Your task to perform on an android device: turn pop-ups off in chrome Image 0: 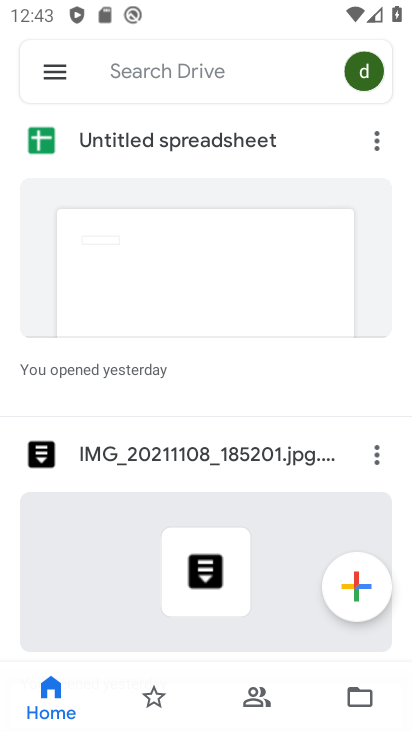
Step 0: press home button
Your task to perform on an android device: turn pop-ups off in chrome Image 1: 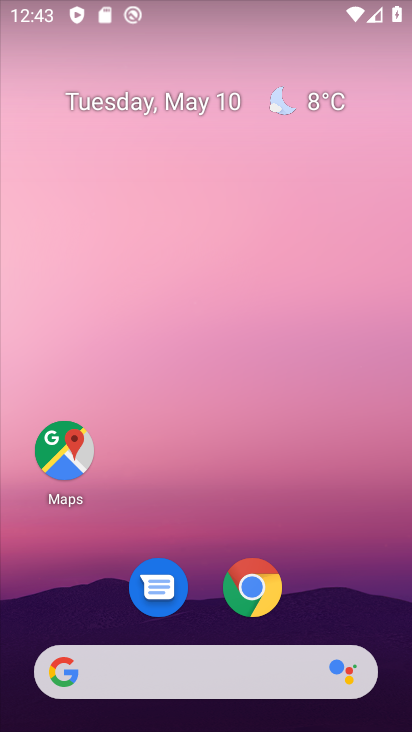
Step 1: click (255, 573)
Your task to perform on an android device: turn pop-ups off in chrome Image 2: 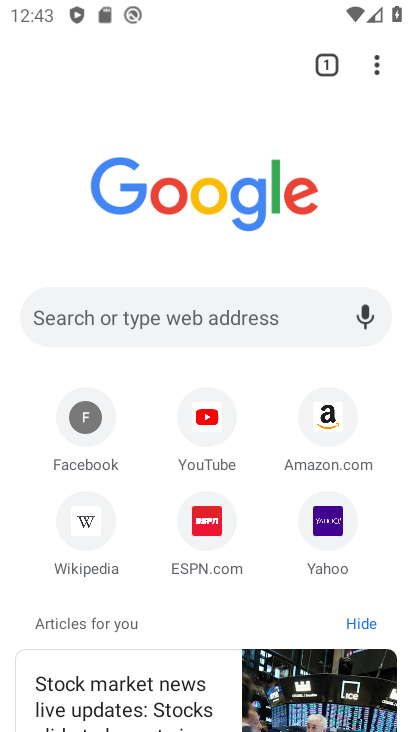
Step 2: click (385, 66)
Your task to perform on an android device: turn pop-ups off in chrome Image 3: 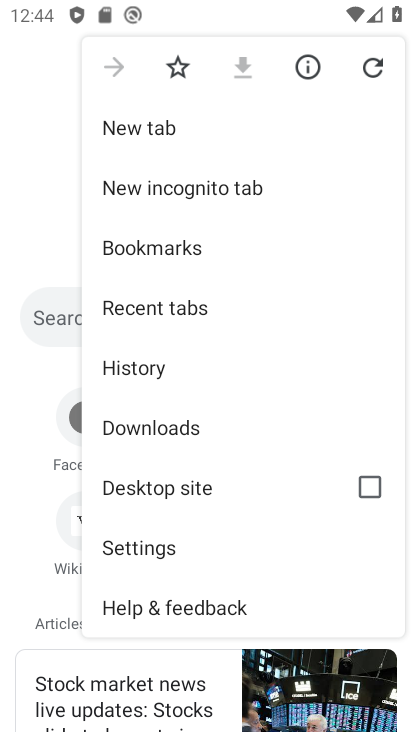
Step 3: click (155, 537)
Your task to perform on an android device: turn pop-ups off in chrome Image 4: 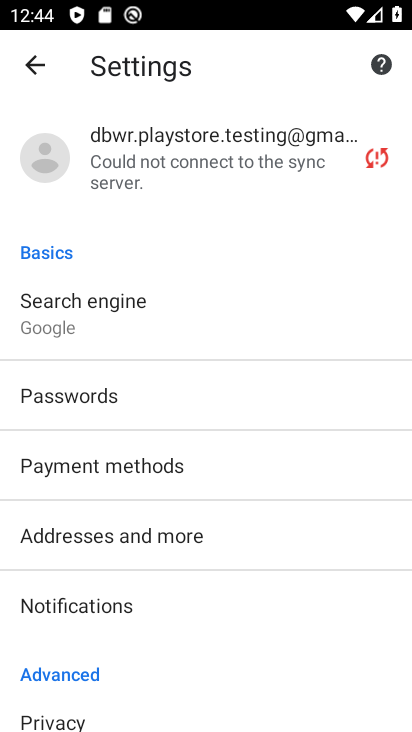
Step 4: click (41, 68)
Your task to perform on an android device: turn pop-ups off in chrome Image 5: 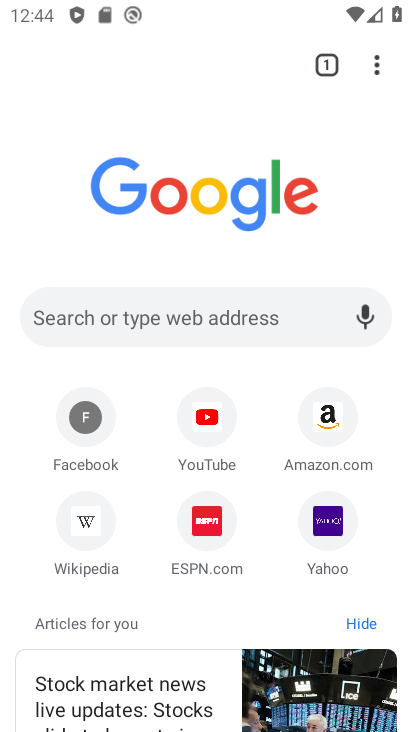
Step 5: click (376, 70)
Your task to perform on an android device: turn pop-ups off in chrome Image 6: 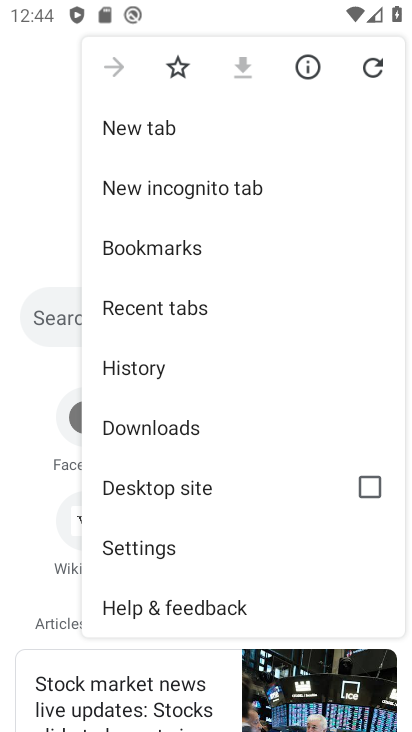
Step 6: click (170, 545)
Your task to perform on an android device: turn pop-ups off in chrome Image 7: 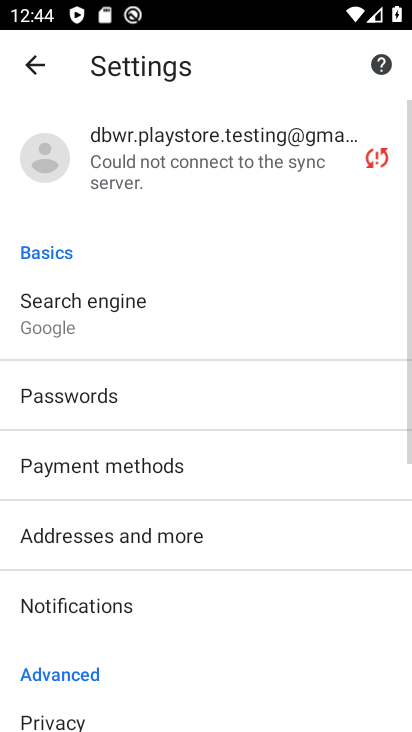
Step 7: drag from (211, 586) to (172, 275)
Your task to perform on an android device: turn pop-ups off in chrome Image 8: 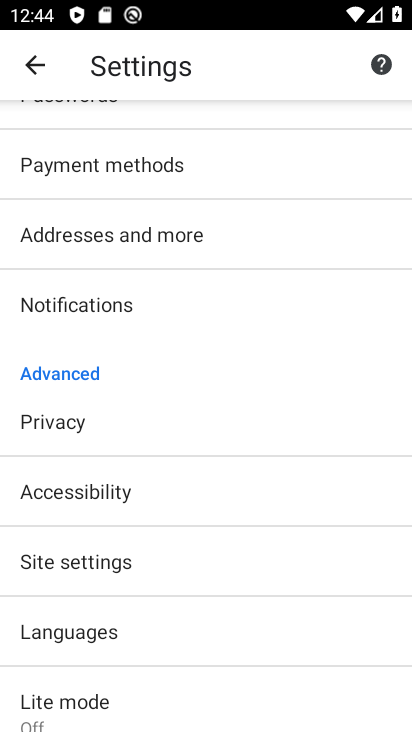
Step 8: click (145, 556)
Your task to perform on an android device: turn pop-ups off in chrome Image 9: 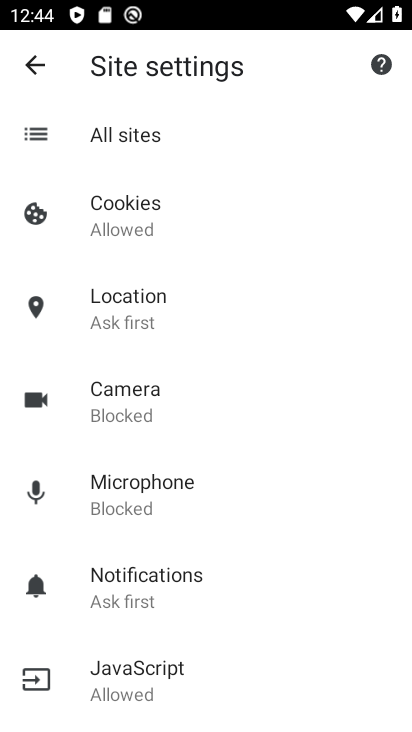
Step 9: drag from (178, 630) to (170, 287)
Your task to perform on an android device: turn pop-ups off in chrome Image 10: 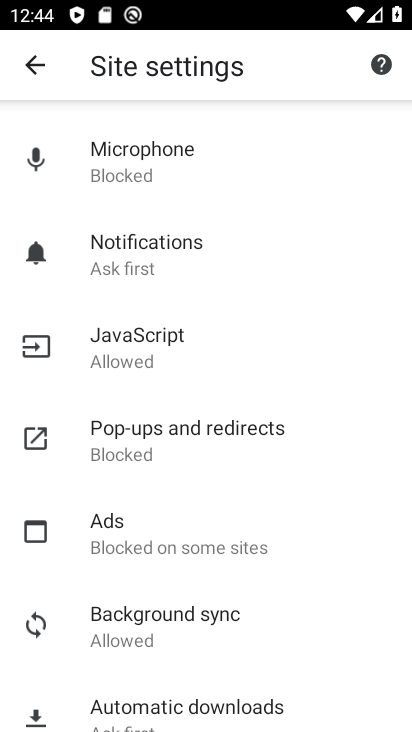
Step 10: click (151, 442)
Your task to perform on an android device: turn pop-ups off in chrome Image 11: 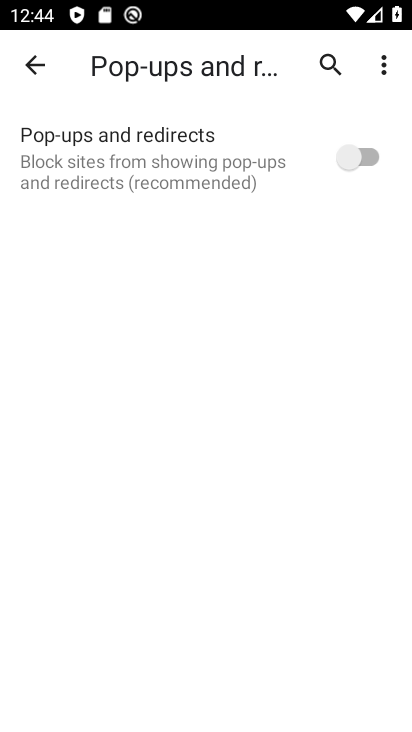
Step 11: task complete